Your task to perform on an android device: Open location settings Image 0: 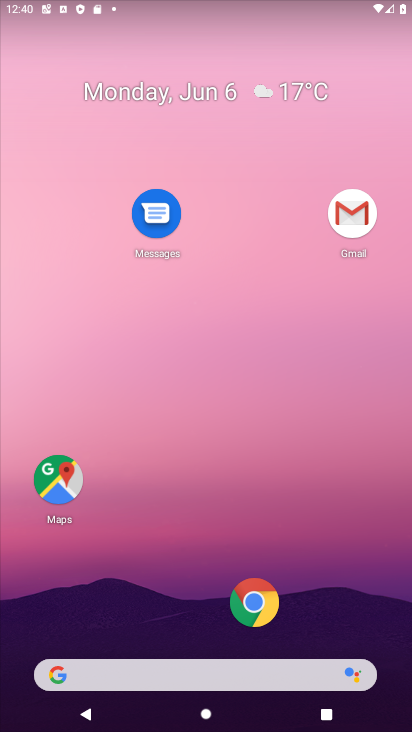
Step 0: drag from (358, 619) to (290, 97)
Your task to perform on an android device: Open location settings Image 1: 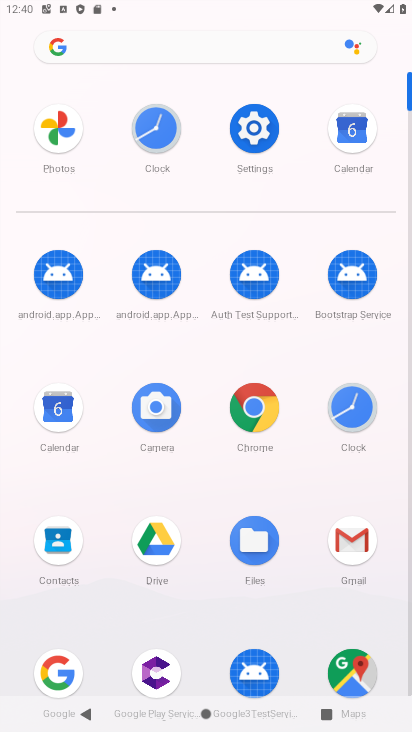
Step 1: click (240, 133)
Your task to perform on an android device: Open location settings Image 2: 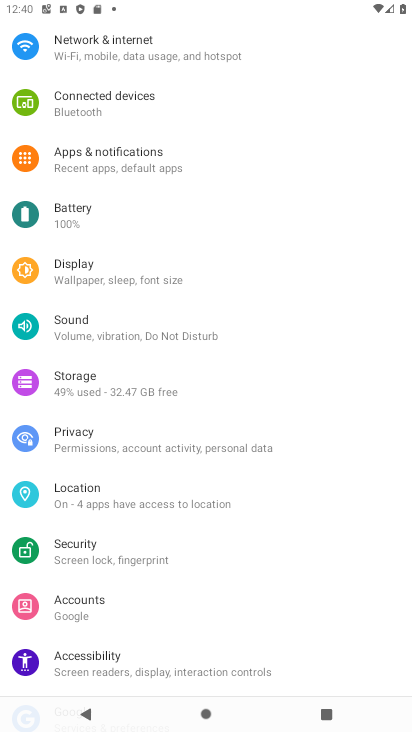
Step 2: click (146, 510)
Your task to perform on an android device: Open location settings Image 3: 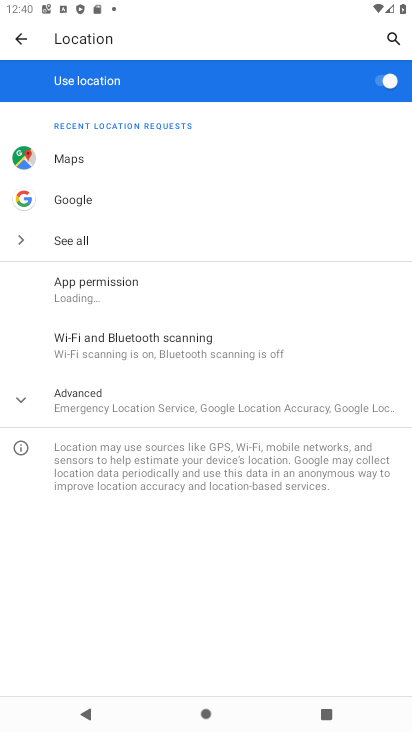
Step 3: task complete